Your task to perform on an android device: turn pop-ups off in chrome Image 0: 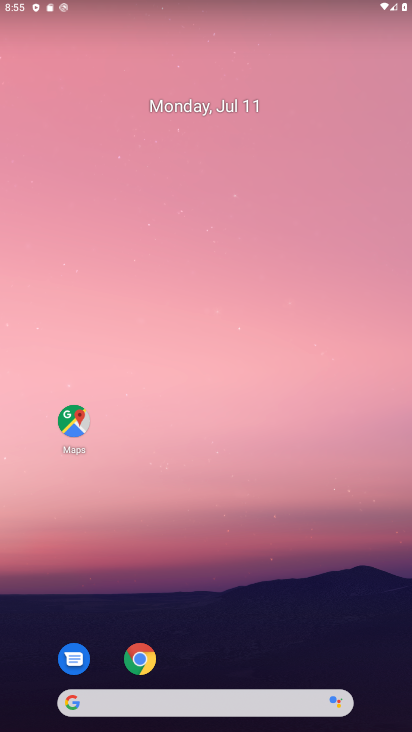
Step 0: drag from (209, 725) to (203, 67)
Your task to perform on an android device: turn pop-ups off in chrome Image 1: 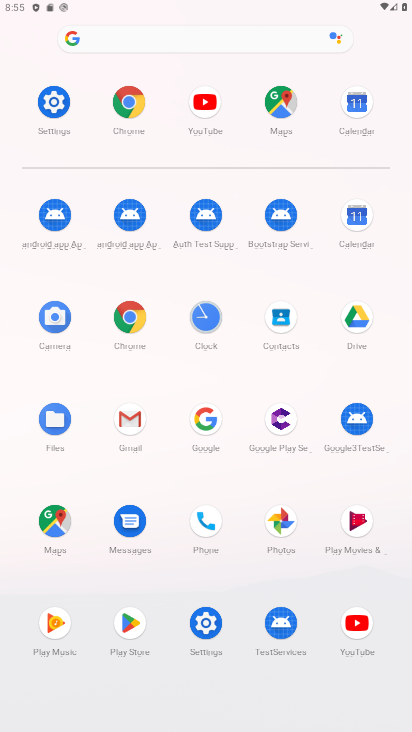
Step 1: click (129, 319)
Your task to perform on an android device: turn pop-ups off in chrome Image 2: 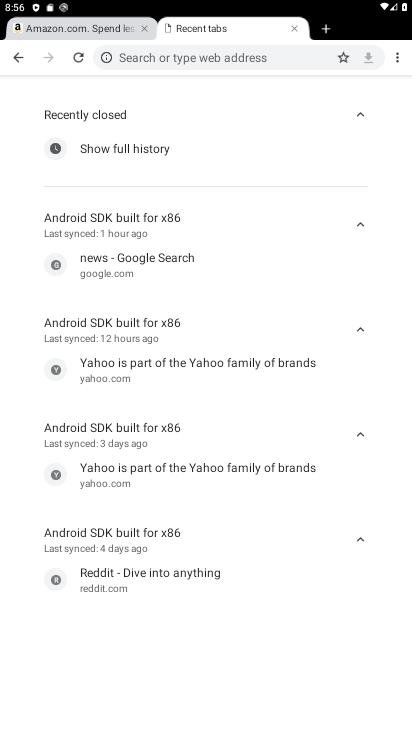
Step 2: click (396, 60)
Your task to perform on an android device: turn pop-ups off in chrome Image 3: 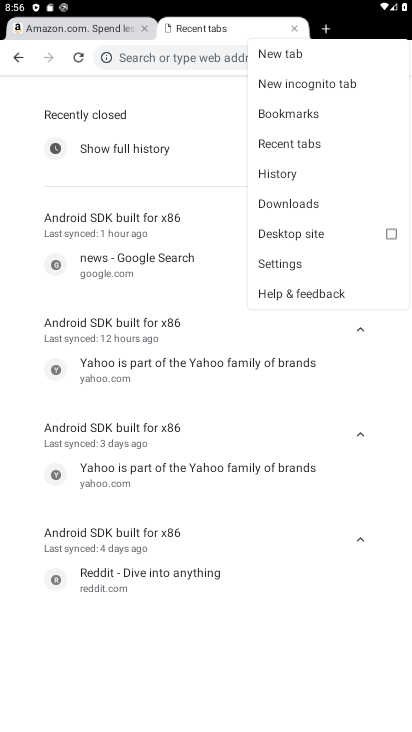
Step 3: click (284, 263)
Your task to perform on an android device: turn pop-ups off in chrome Image 4: 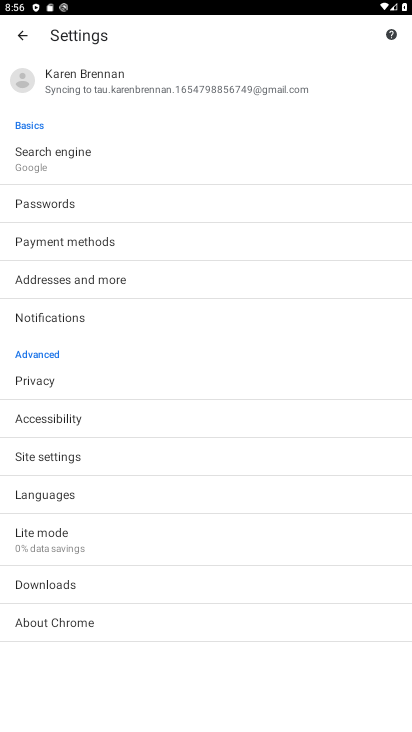
Step 4: click (66, 457)
Your task to perform on an android device: turn pop-ups off in chrome Image 5: 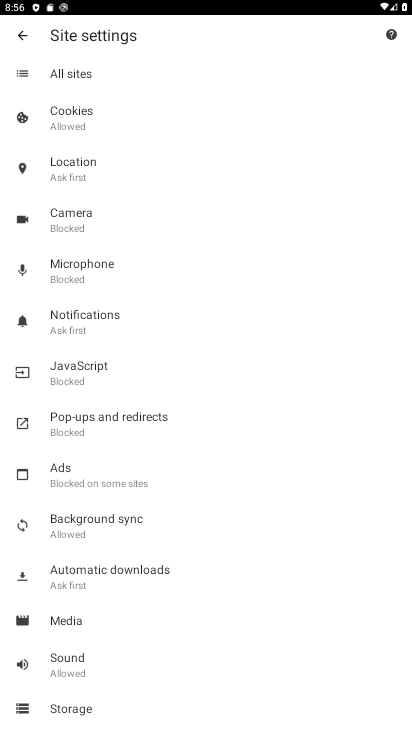
Step 5: click (84, 408)
Your task to perform on an android device: turn pop-ups off in chrome Image 6: 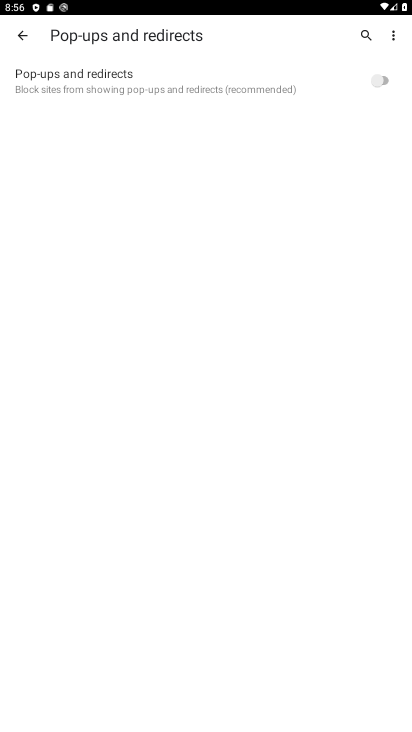
Step 6: task complete